Your task to perform on an android device: Go to Wikipedia Image 0: 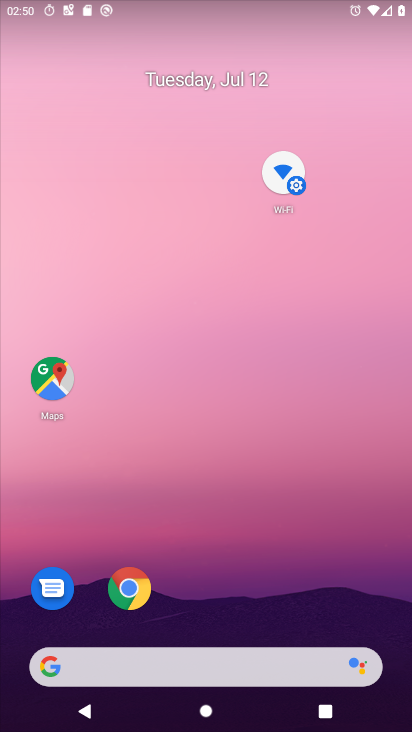
Step 0: drag from (217, 596) to (92, 1)
Your task to perform on an android device: Go to Wikipedia Image 1: 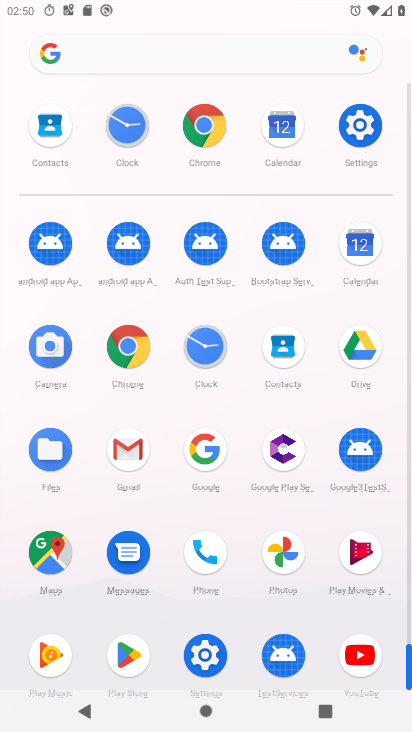
Step 1: click (192, 130)
Your task to perform on an android device: Go to Wikipedia Image 2: 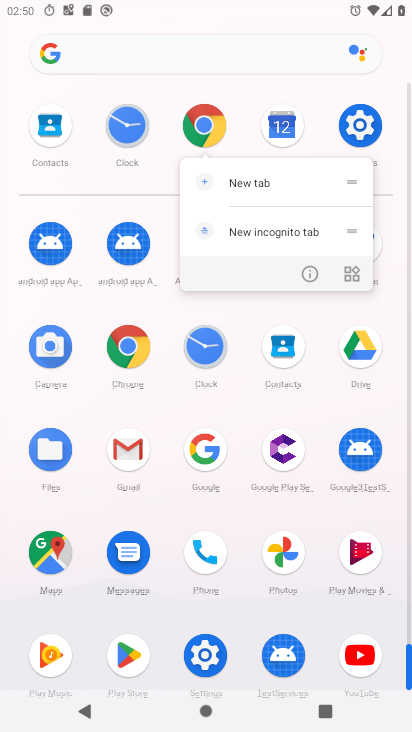
Step 2: click (302, 271)
Your task to perform on an android device: Go to Wikipedia Image 3: 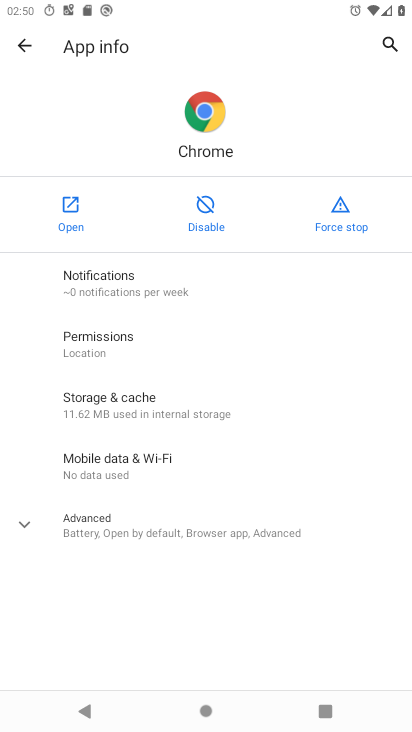
Step 3: click (73, 195)
Your task to perform on an android device: Go to Wikipedia Image 4: 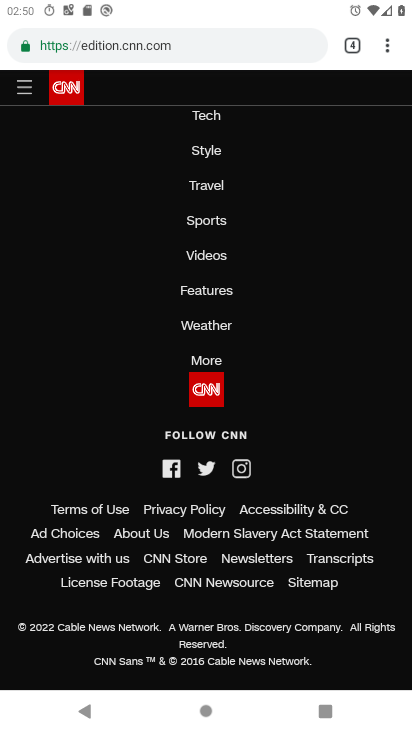
Step 4: drag from (249, 287) to (259, 624)
Your task to perform on an android device: Go to Wikipedia Image 5: 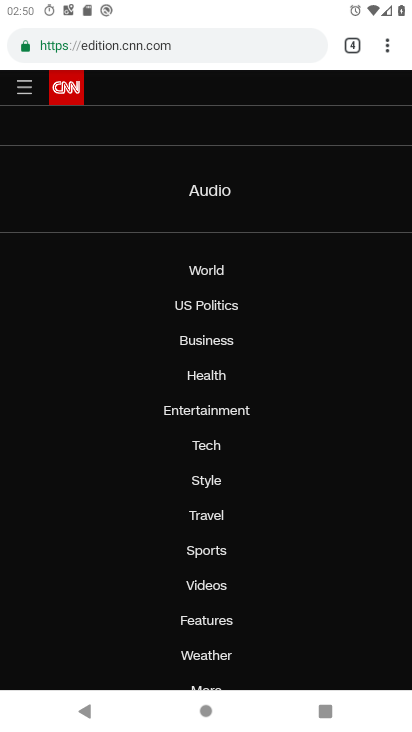
Step 5: click (388, 55)
Your task to perform on an android device: Go to Wikipedia Image 6: 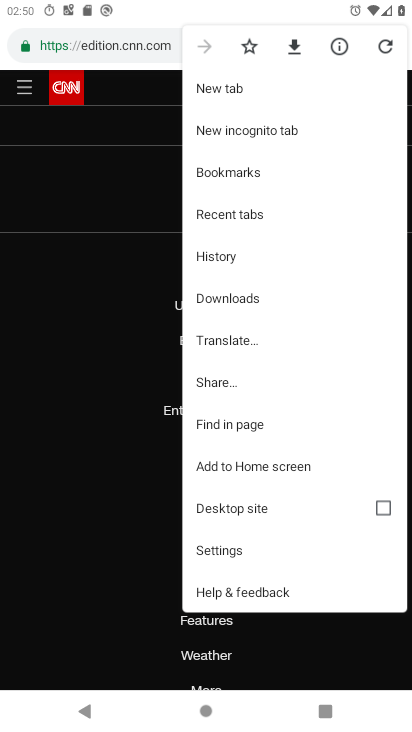
Step 6: drag from (273, 468) to (319, 86)
Your task to perform on an android device: Go to Wikipedia Image 7: 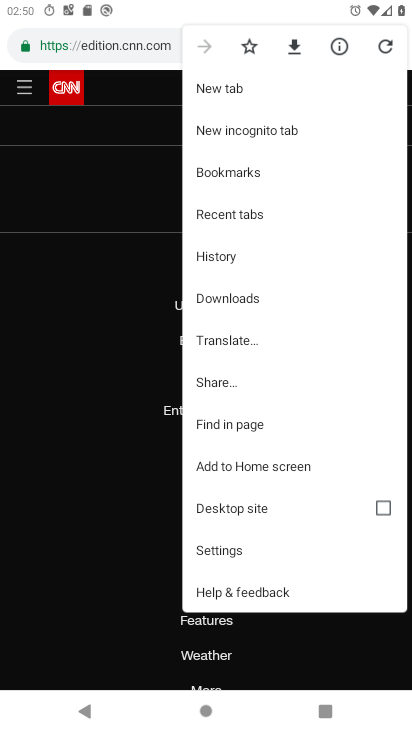
Step 7: click (135, 80)
Your task to perform on an android device: Go to Wikipedia Image 8: 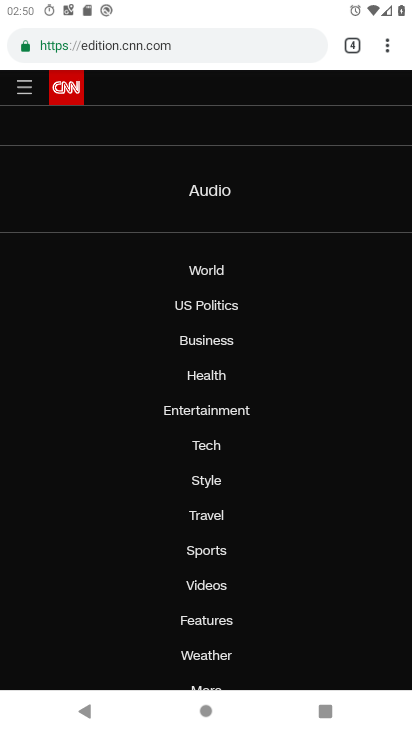
Step 8: click (132, 45)
Your task to perform on an android device: Go to Wikipedia Image 9: 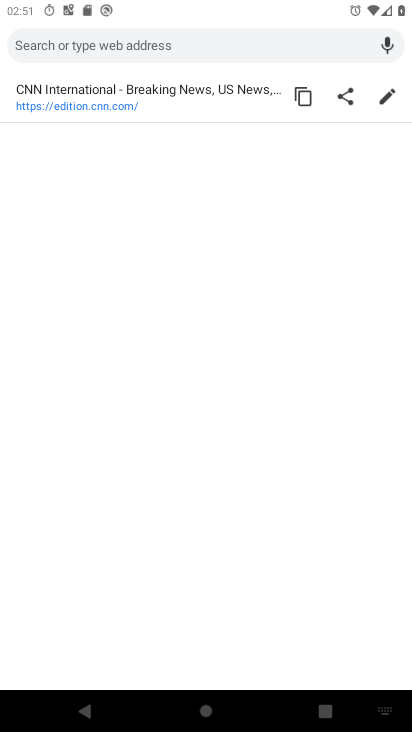
Step 9: type "wikipedia"
Your task to perform on an android device: Go to Wikipedia Image 10: 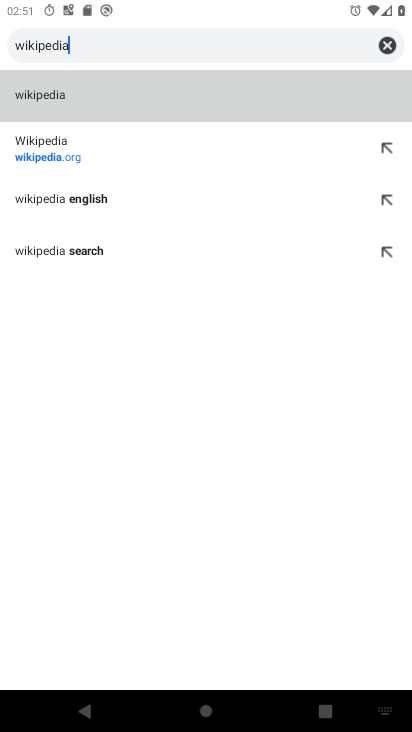
Step 10: click (56, 149)
Your task to perform on an android device: Go to Wikipedia Image 11: 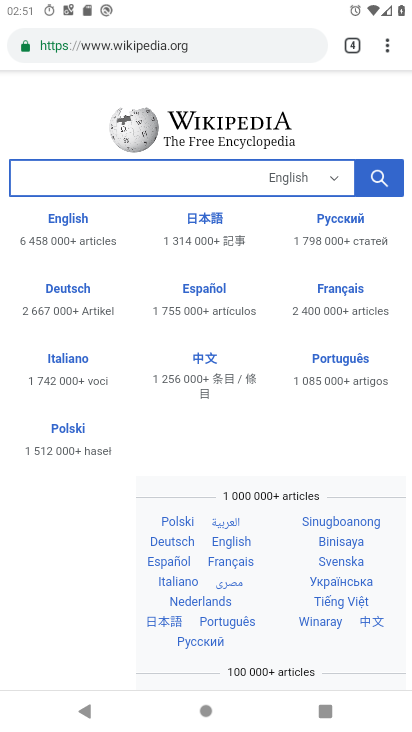
Step 11: task complete